Your task to perform on an android device: set the timer Image 0: 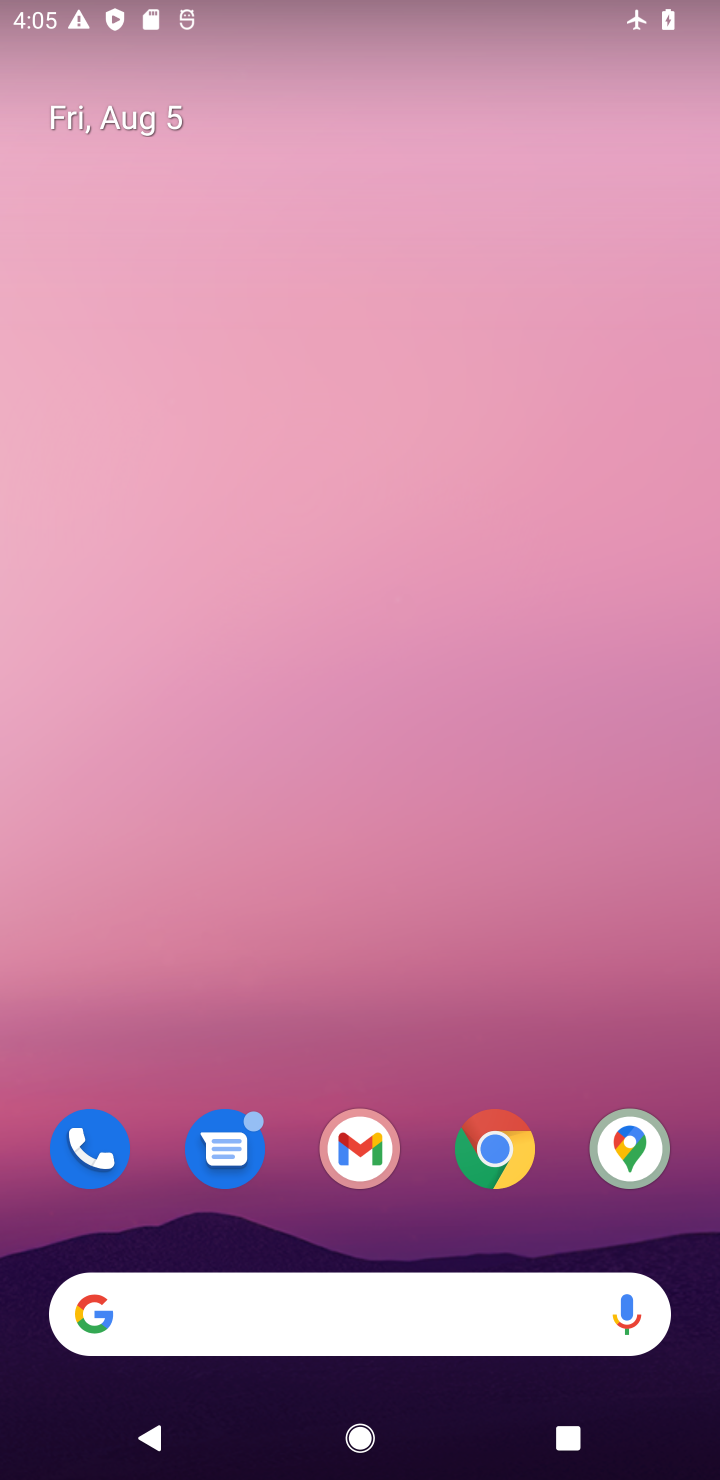
Step 0: drag from (338, 1173) to (455, 30)
Your task to perform on an android device: set the timer Image 1: 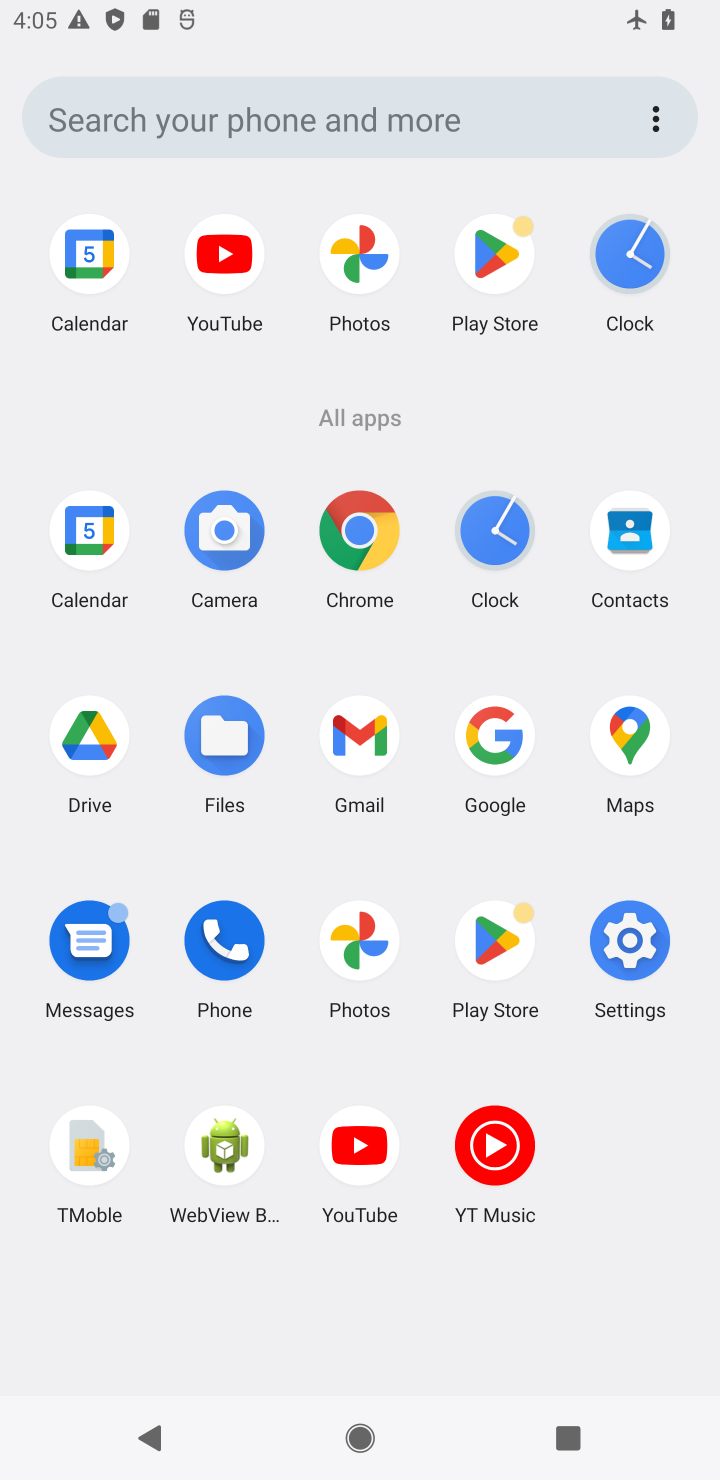
Step 1: click (485, 537)
Your task to perform on an android device: set the timer Image 2: 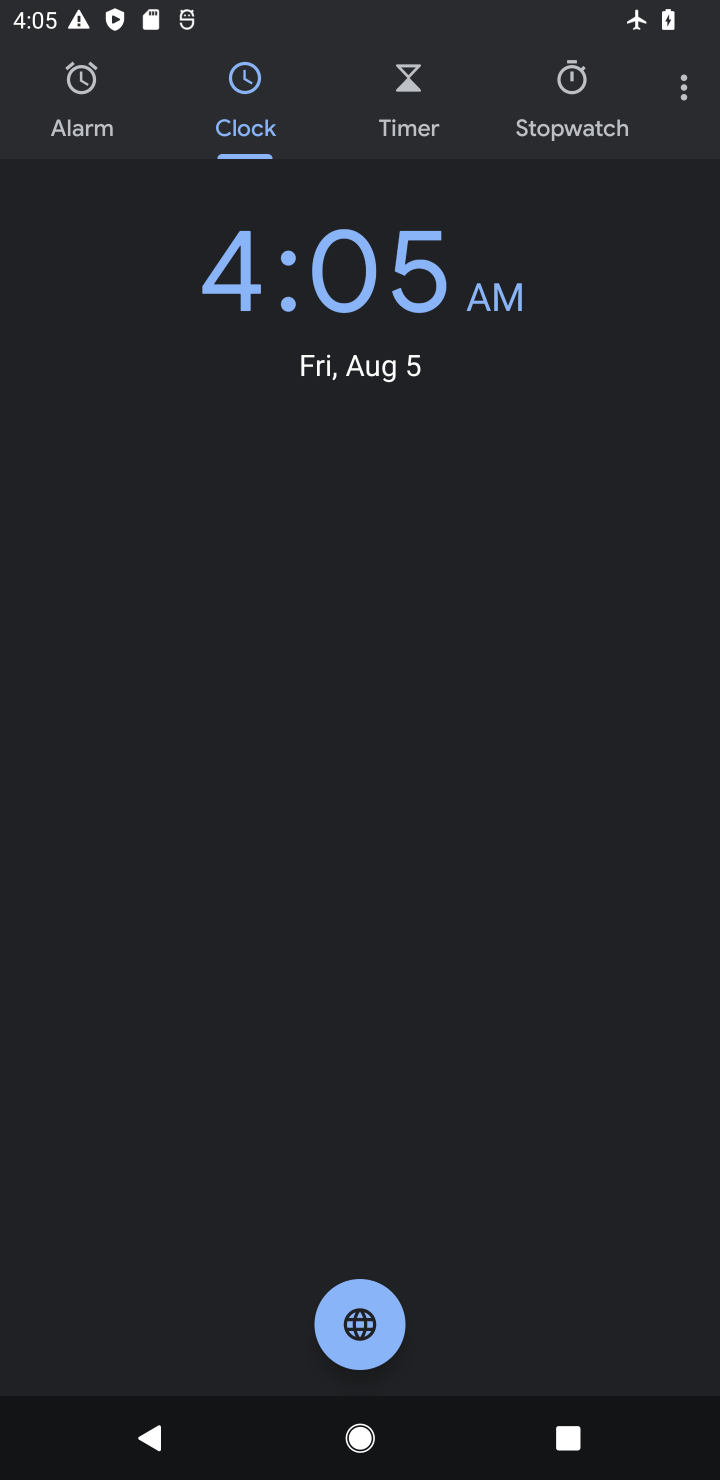
Step 2: click (397, 72)
Your task to perform on an android device: set the timer Image 3: 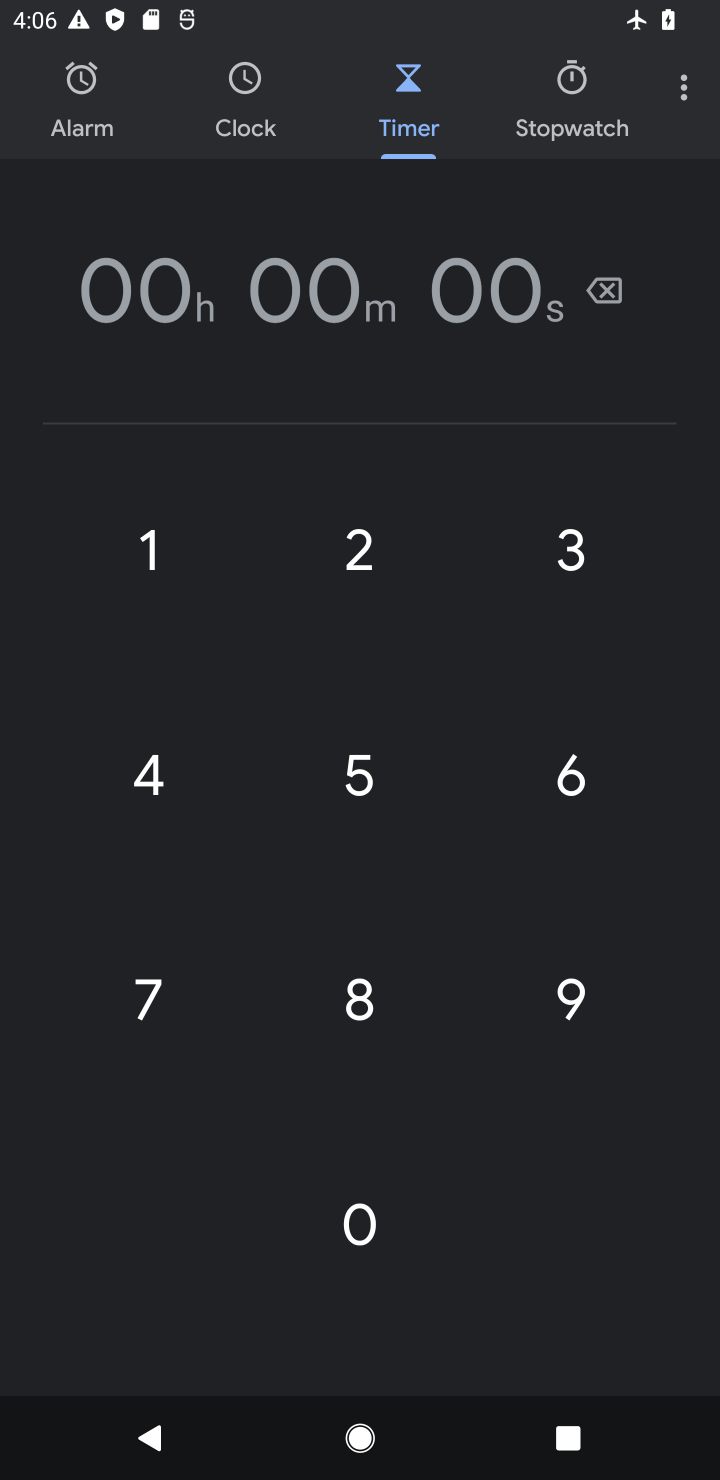
Step 3: click (346, 548)
Your task to perform on an android device: set the timer Image 4: 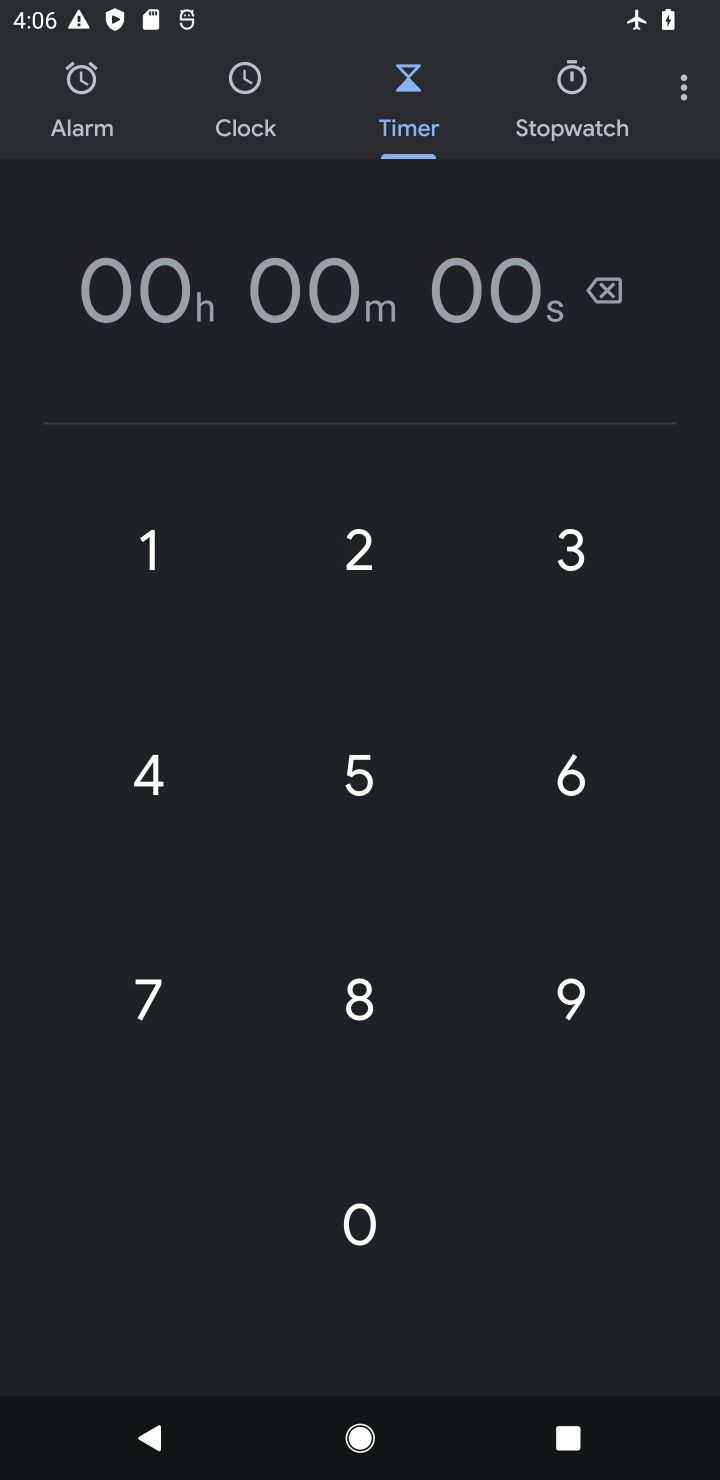
Step 4: click (567, 547)
Your task to perform on an android device: set the timer Image 5: 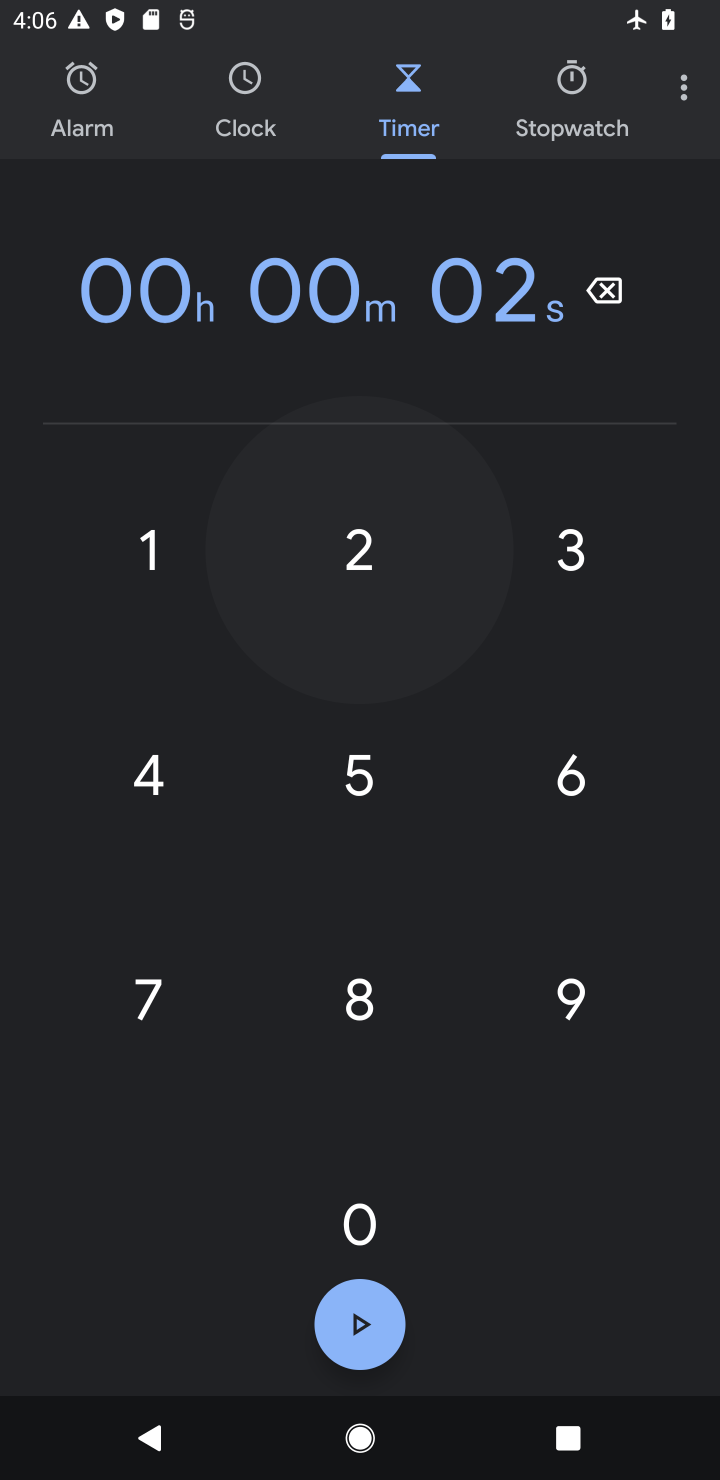
Step 5: click (133, 732)
Your task to perform on an android device: set the timer Image 6: 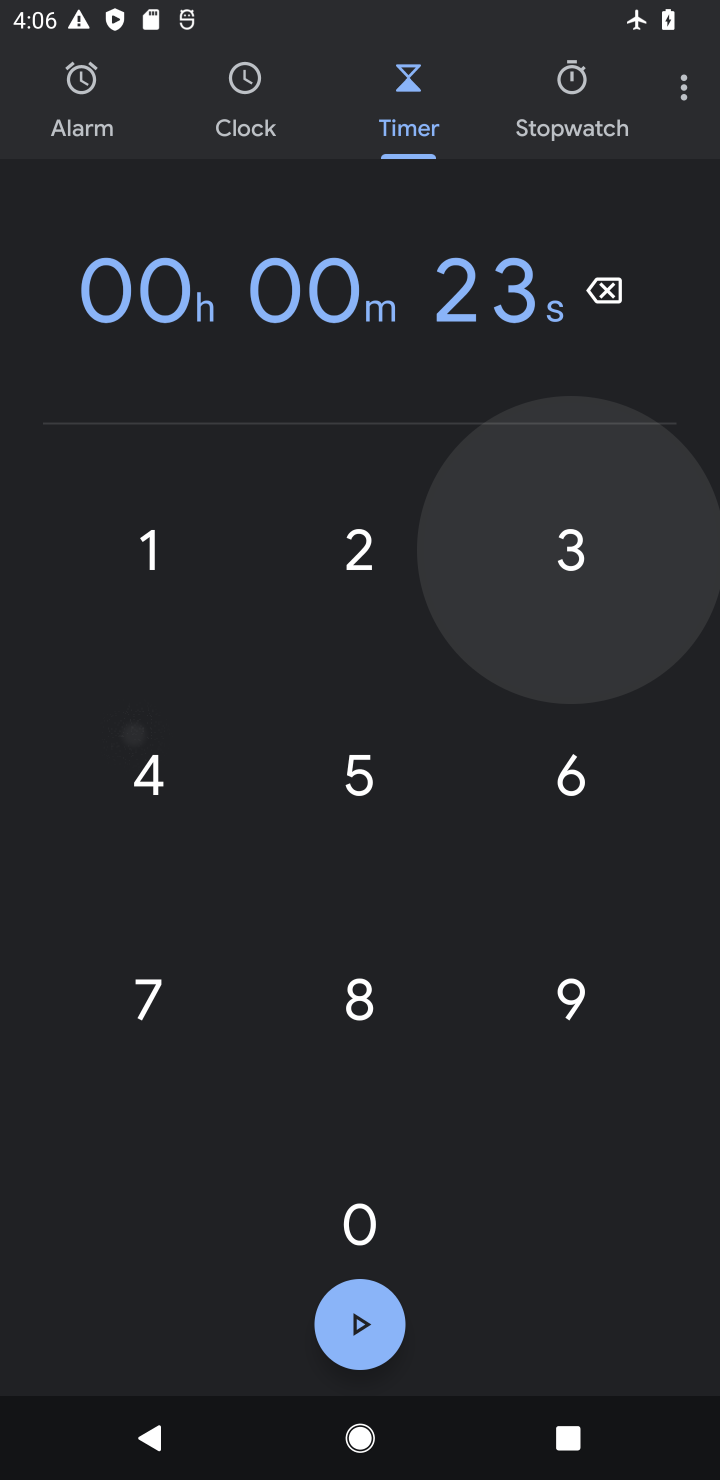
Step 6: click (326, 786)
Your task to perform on an android device: set the timer Image 7: 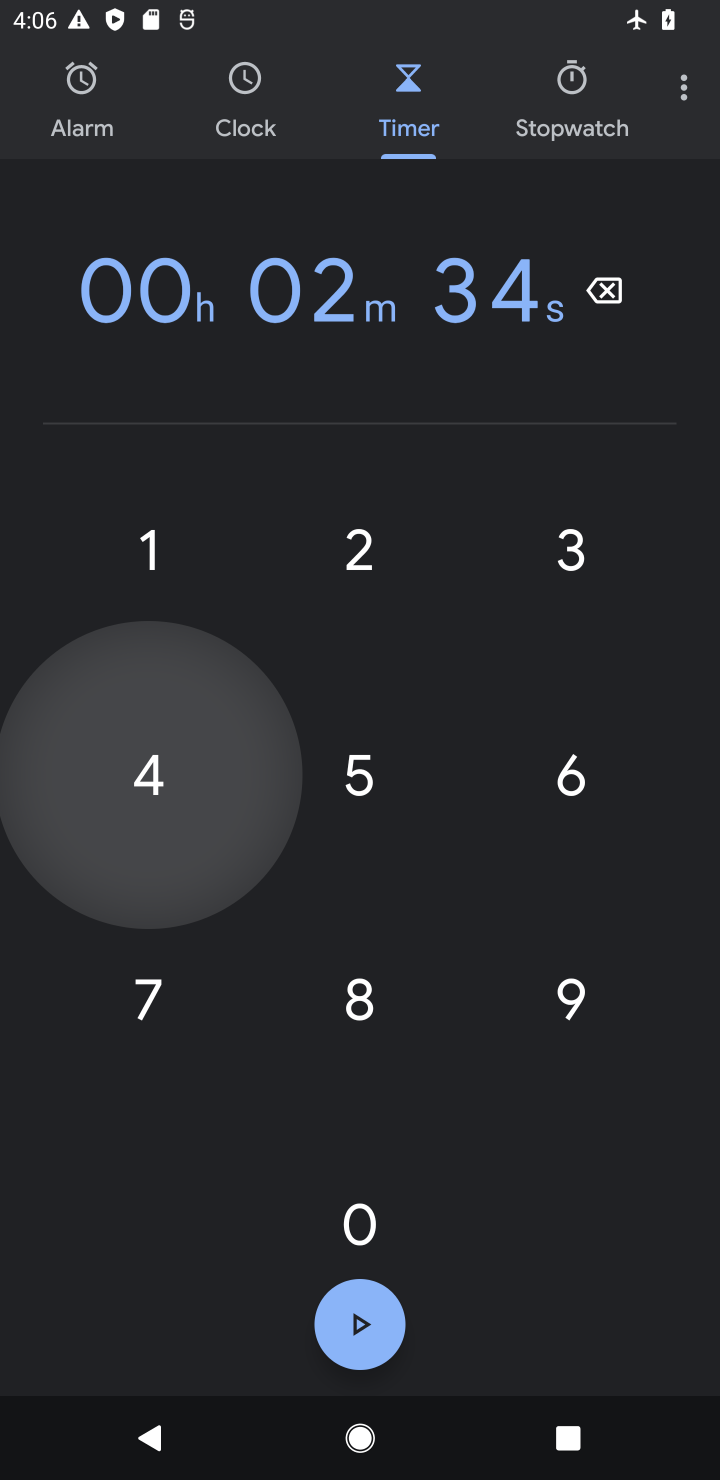
Step 7: click (582, 781)
Your task to perform on an android device: set the timer Image 8: 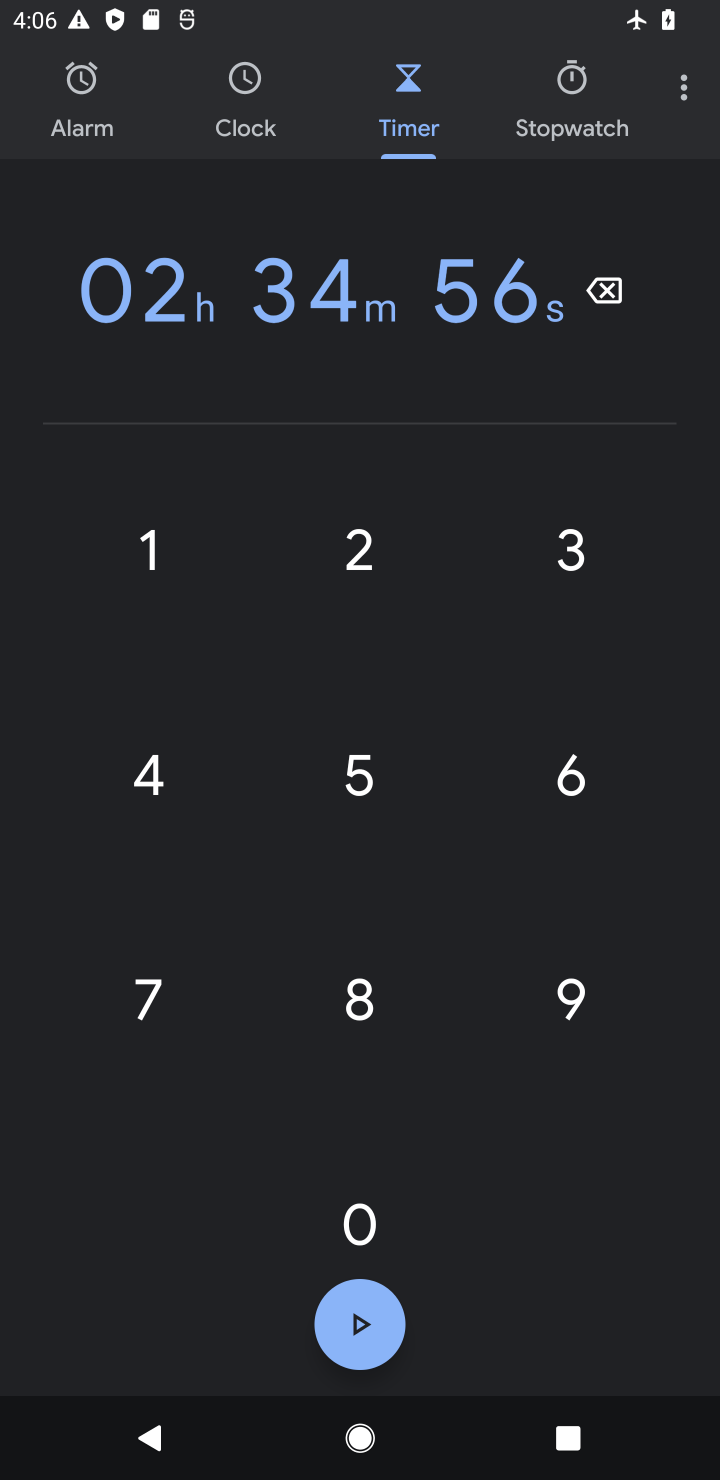
Step 8: task complete